Your task to perform on an android device: open a new tab in the chrome app Image 0: 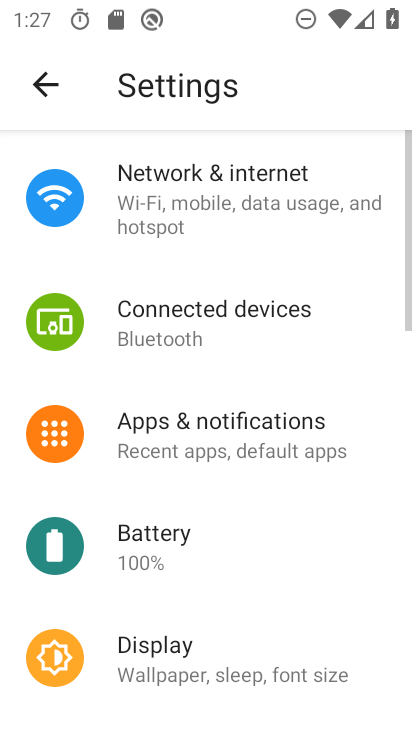
Step 0: press home button
Your task to perform on an android device: open a new tab in the chrome app Image 1: 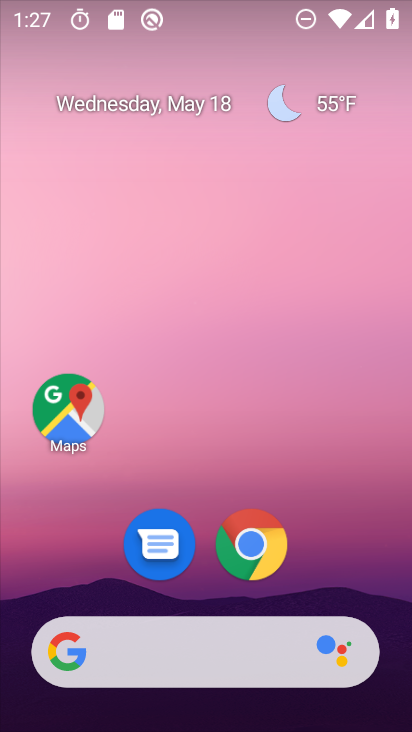
Step 1: click (256, 547)
Your task to perform on an android device: open a new tab in the chrome app Image 2: 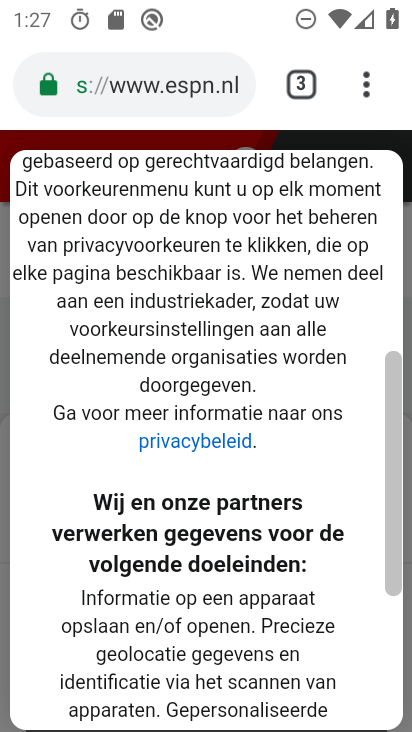
Step 2: click (302, 75)
Your task to perform on an android device: open a new tab in the chrome app Image 3: 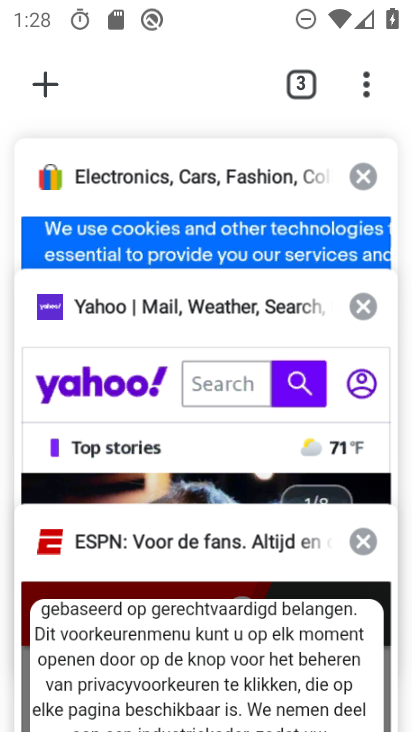
Step 3: click (40, 82)
Your task to perform on an android device: open a new tab in the chrome app Image 4: 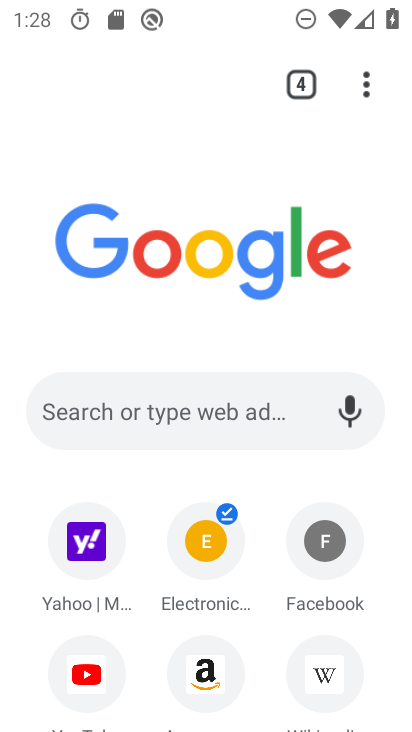
Step 4: task complete